Your task to perform on an android device: When is my next meeting? Image 0: 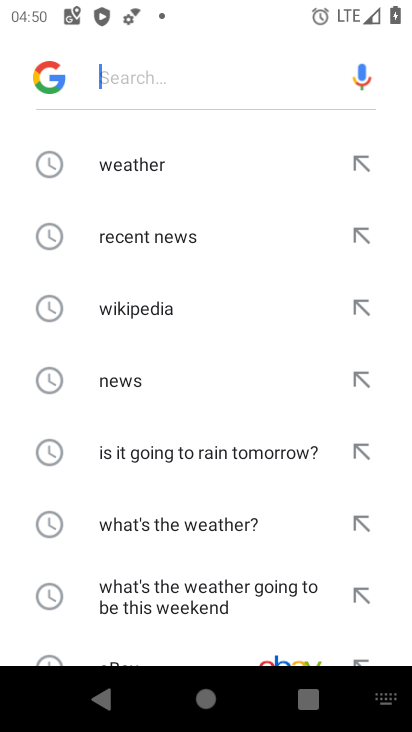
Step 0: press home button
Your task to perform on an android device: When is my next meeting? Image 1: 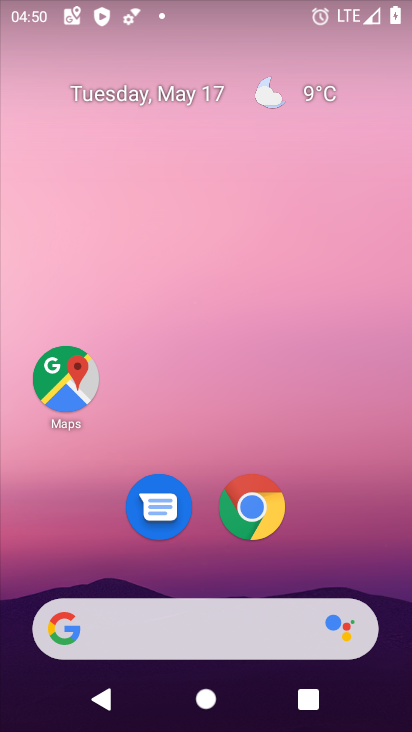
Step 1: click (163, 95)
Your task to perform on an android device: When is my next meeting? Image 2: 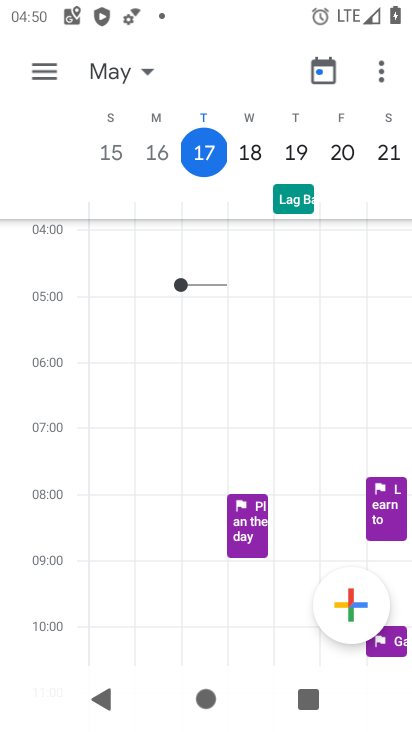
Step 2: task complete